Your task to perform on an android device: Open location settings Image 0: 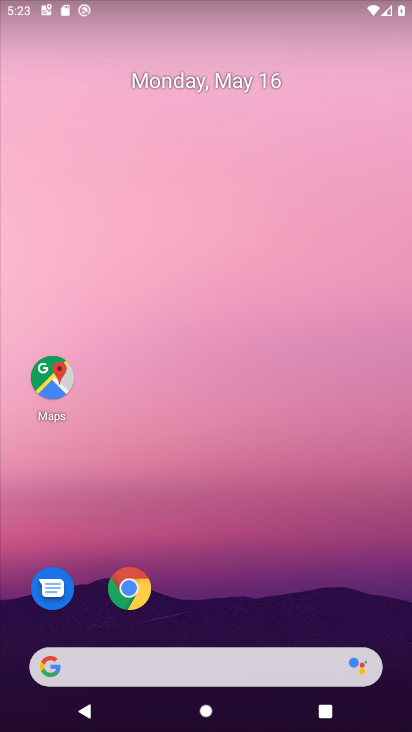
Step 0: drag from (248, 456) to (245, 94)
Your task to perform on an android device: Open location settings Image 1: 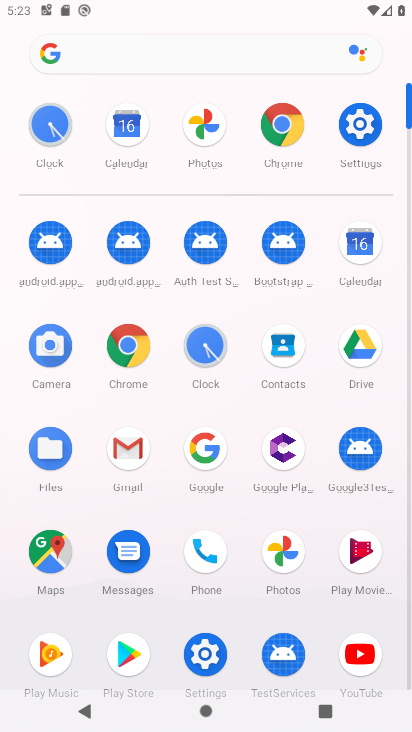
Step 1: click (364, 107)
Your task to perform on an android device: Open location settings Image 2: 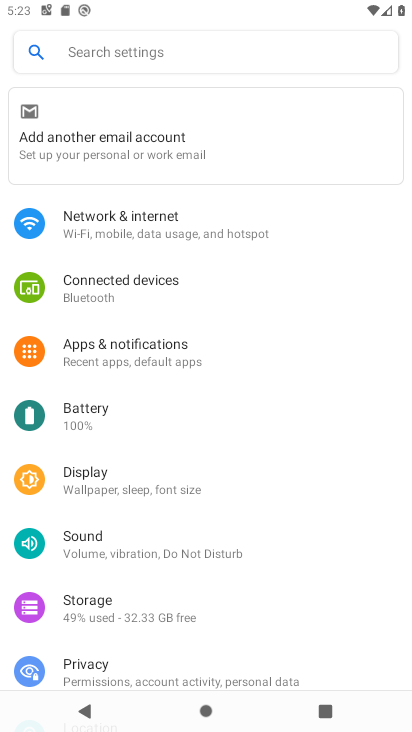
Step 2: drag from (185, 629) to (193, 170)
Your task to perform on an android device: Open location settings Image 3: 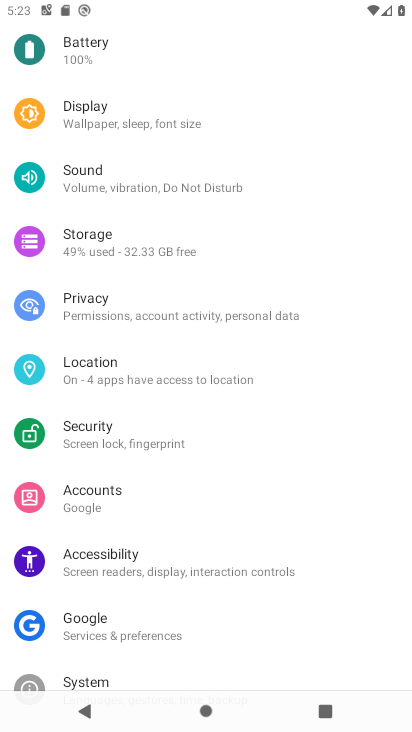
Step 3: click (131, 367)
Your task to perform on an android device: Open location settings Image 4: 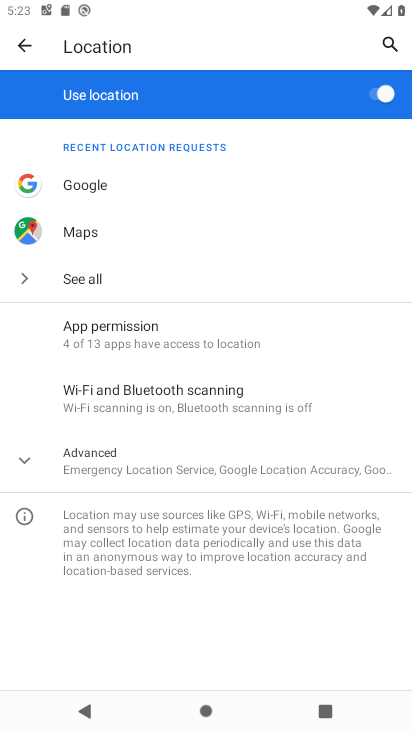
Step 4: task complete